Your task to perform on an android device: manage bookmarks in the chrome app Image 0: 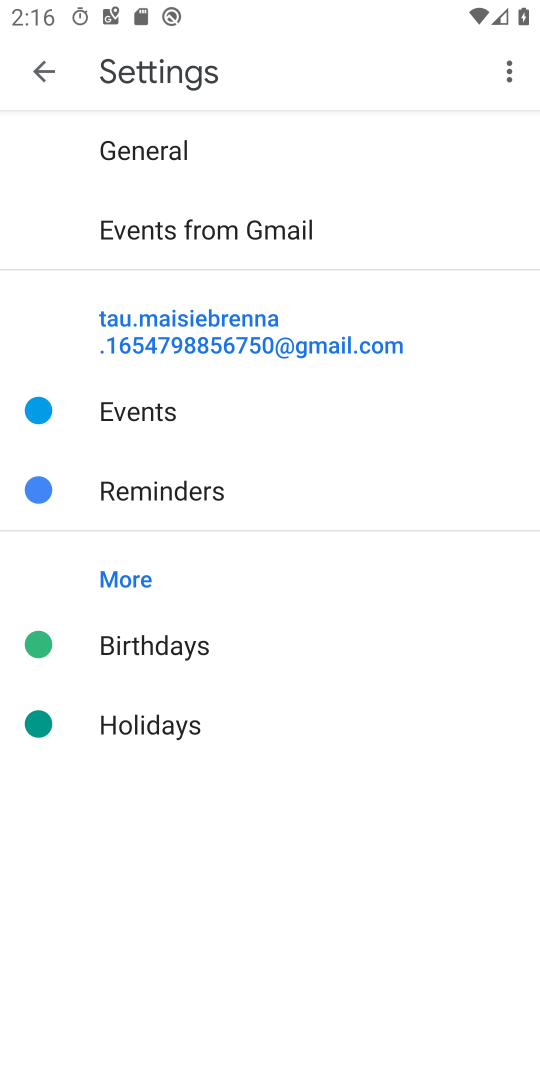
Step 0: press home button
Your task to perform on an android device: manage bookmarks in the chrome app Image 1: 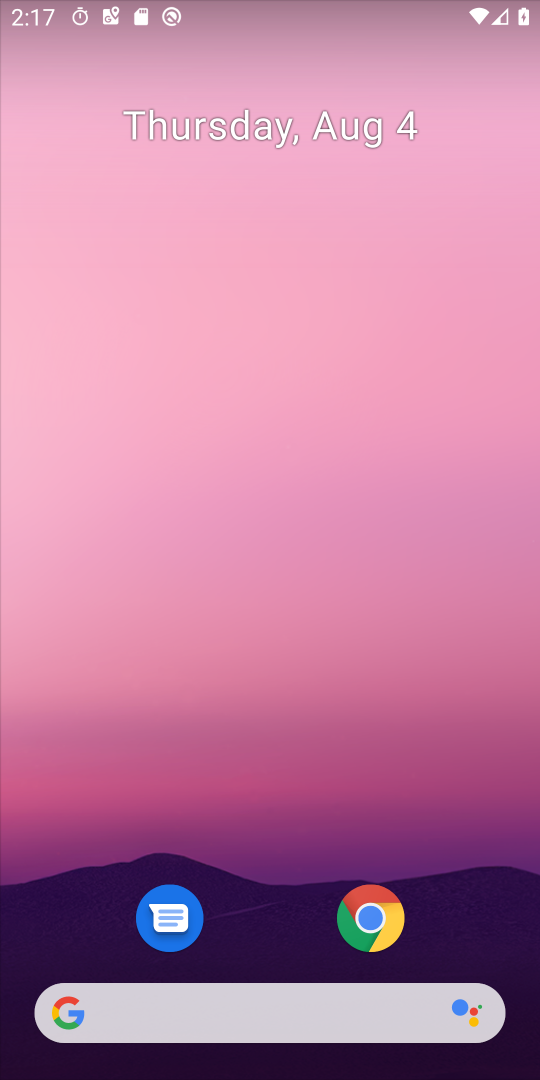
Step 1: click (353, 950)
Your task to perform on an android device: manage bookmarks in the chrome app Image 2: 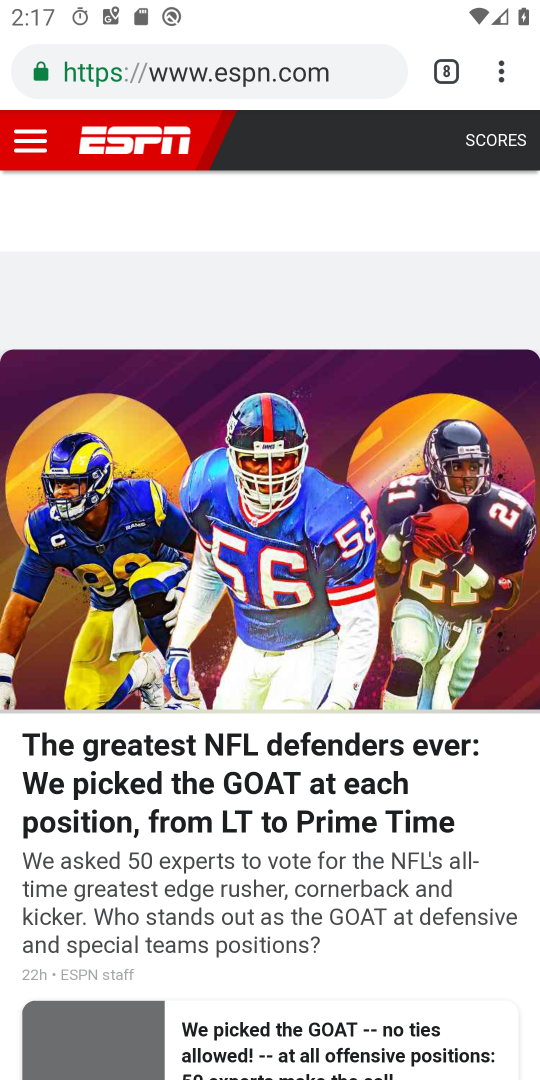
Step 2: click (501, 47)
Your task to perform on an android device: manage bookmarks in the chrome app Image 3: 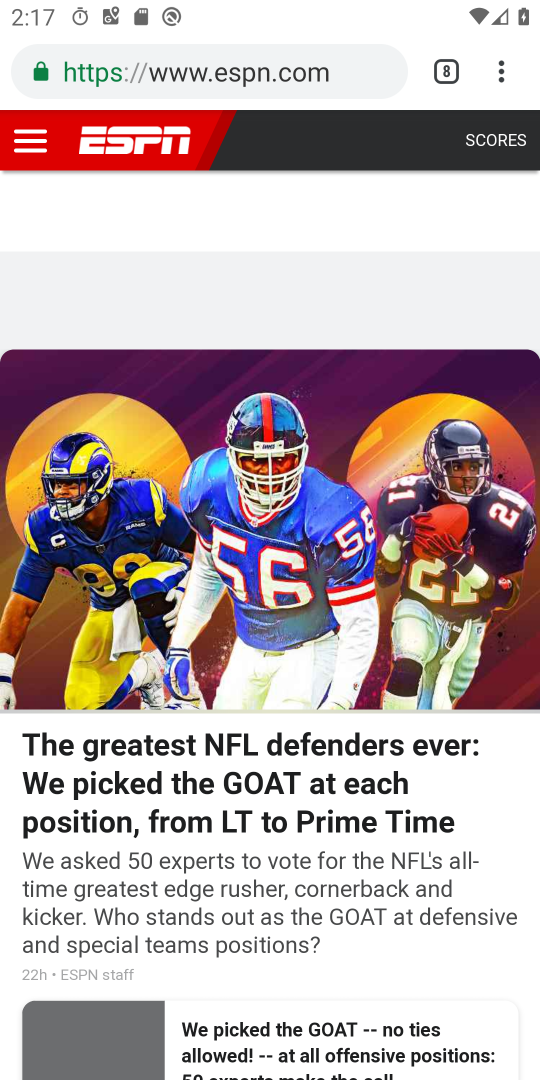
Step 3: drag from (501, 47) to (312, 276)
Your task to perform on an android device: manage bookmarks in the chrome app Image 4: 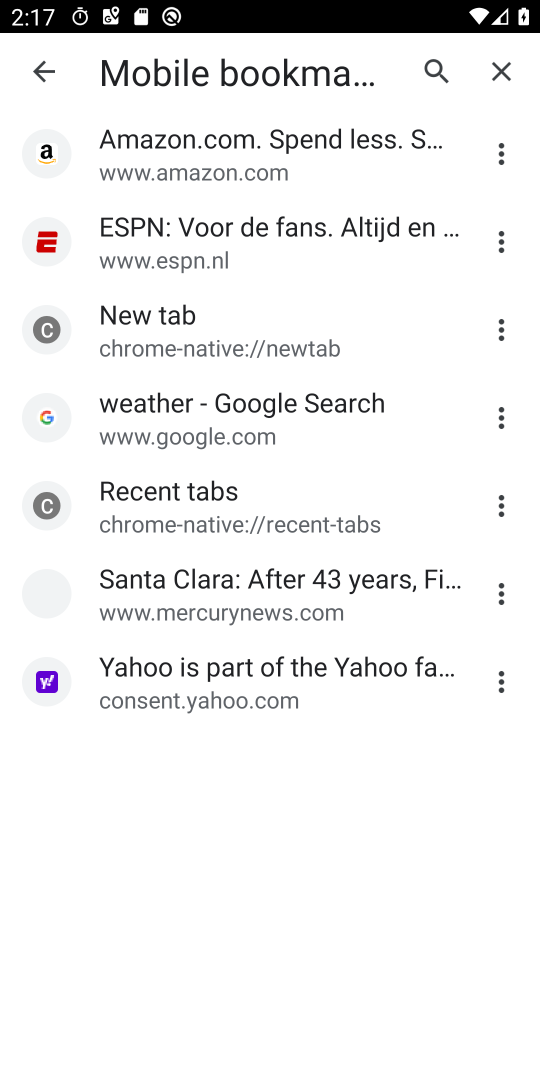
Step 4: click (500, 350)
Your task to perform on an android device: manage bookmarks in the chrome app Image 5: 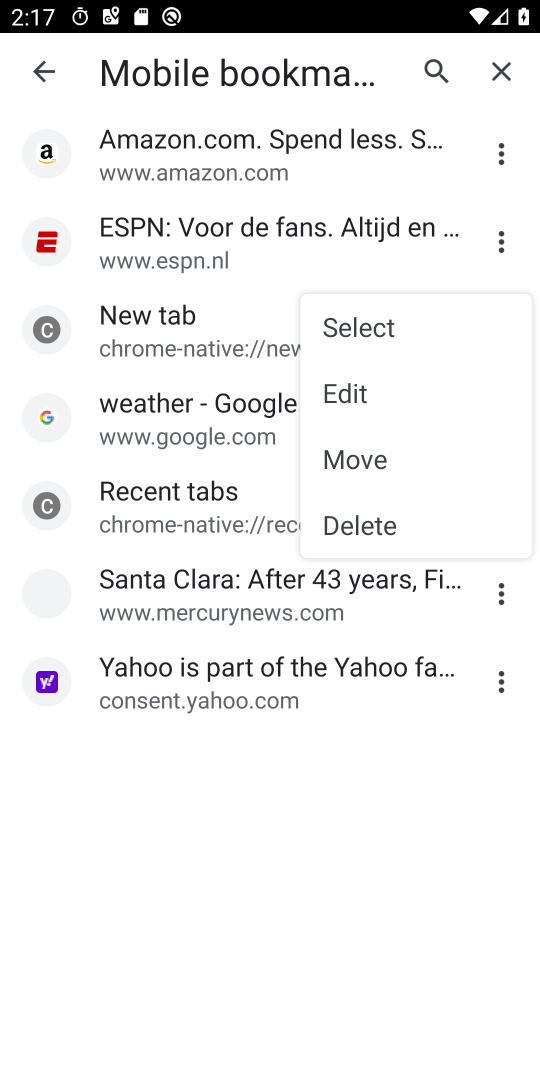
Step 5: click (345, 540)
Your task to perform on an android device: manage bookmarks in the chrome app Image 6: 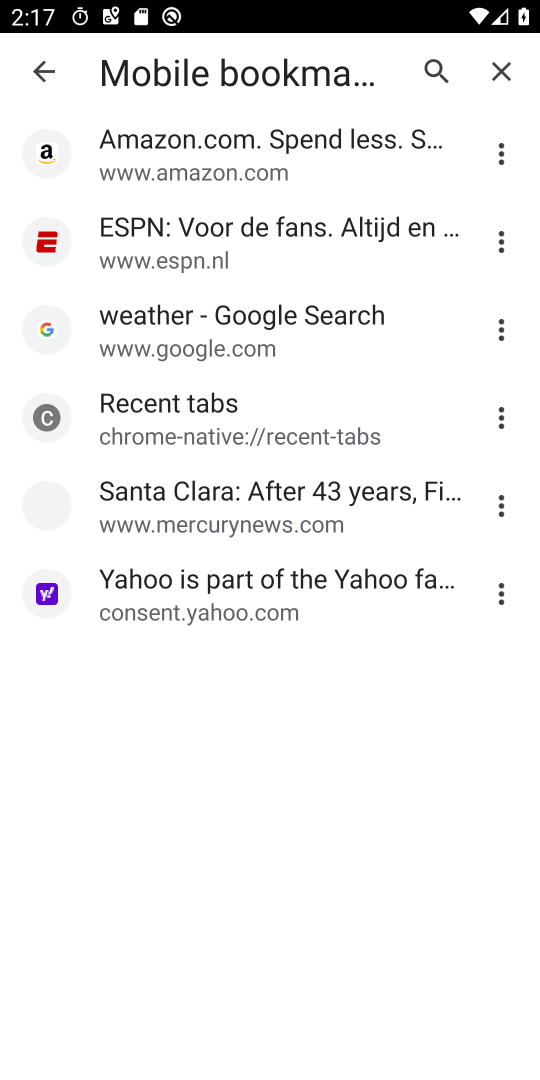
Step 6: task complete